Your task to perform on an android device: What is the recent news? Image 0: 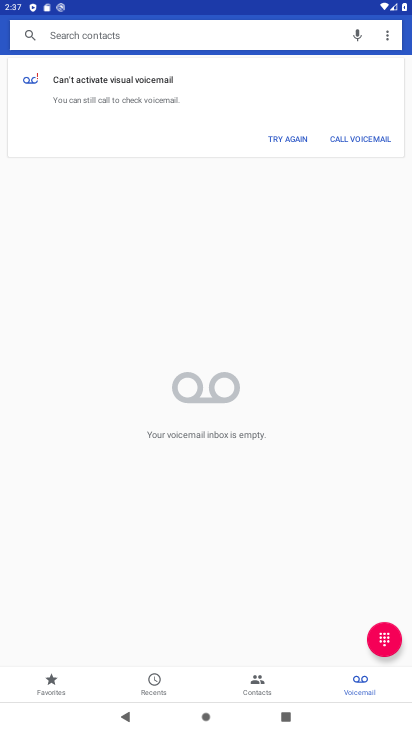
Step 0: press home button
Your task to perform on an android device: What is the recent news? Image 1: 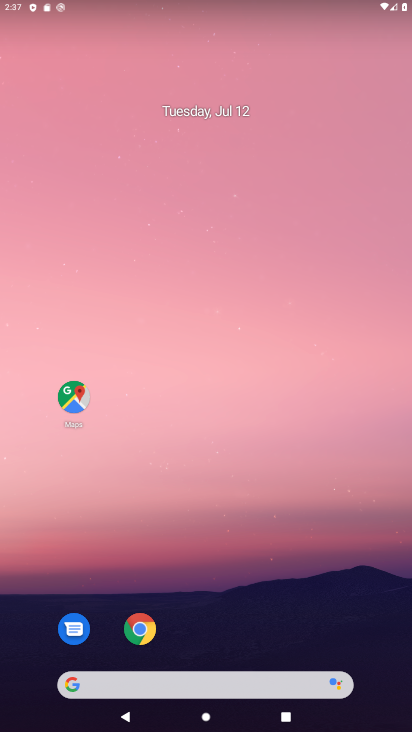
Step 1: drag from (224, 633) to (258, 98)
Your task to perform on an android device: What is the recent news? Image 2: 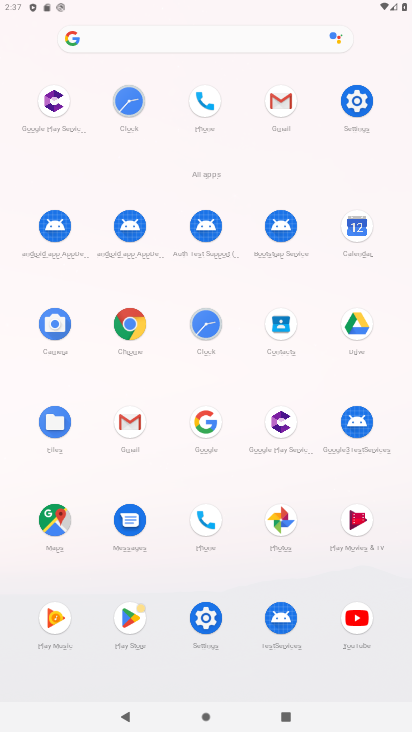
Step 2: click (202, 423)
Your task to perform on an android device: What is the recent news? Image 3: 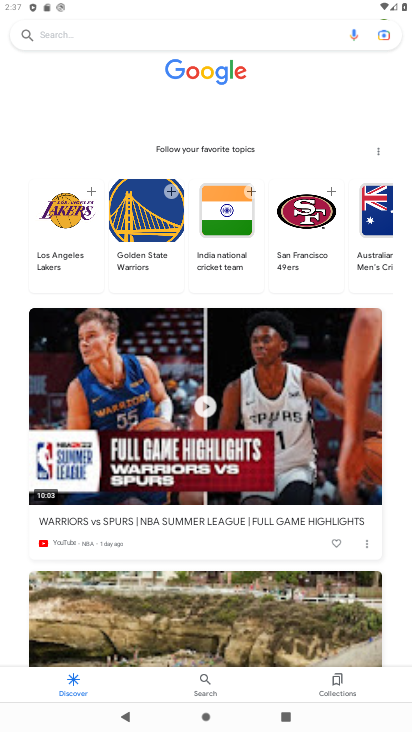
Step 3: click (163, 34)
Your task to perform on an android device: What is the recent news? Image 4: 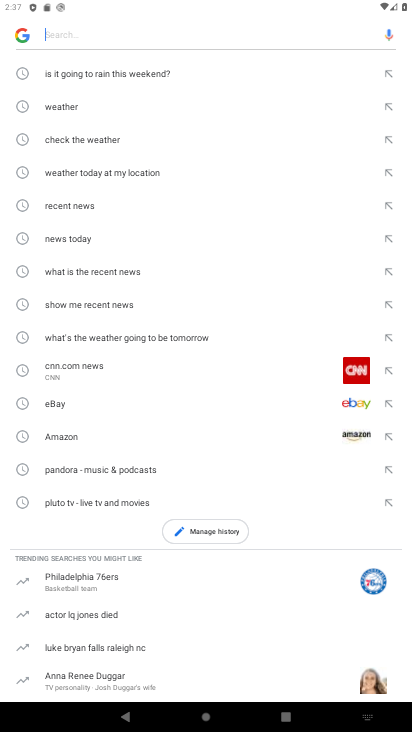
Step 4: click (88, 207)
Your task to perform on an android device: What is the recent news? Image 5: 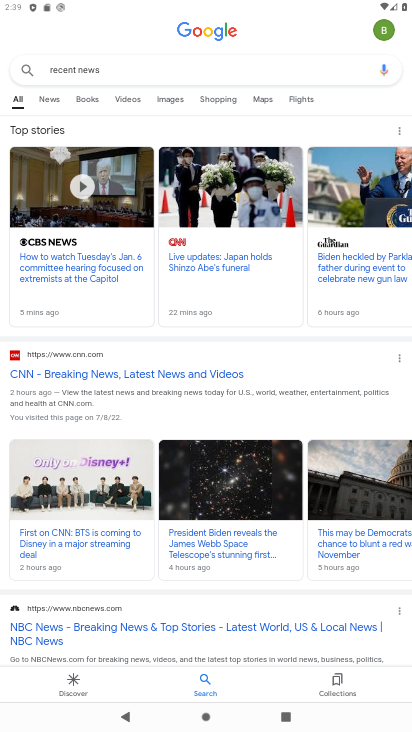
Step 5: task complete